Your task to perform on an android device: Open Wikipedia Image 0: 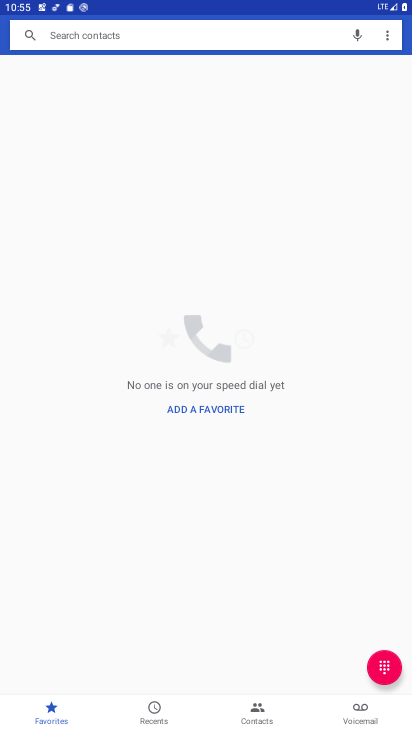
Step 0: press home button
Your task to perform on an android device: Open Wikipedia Image 1: 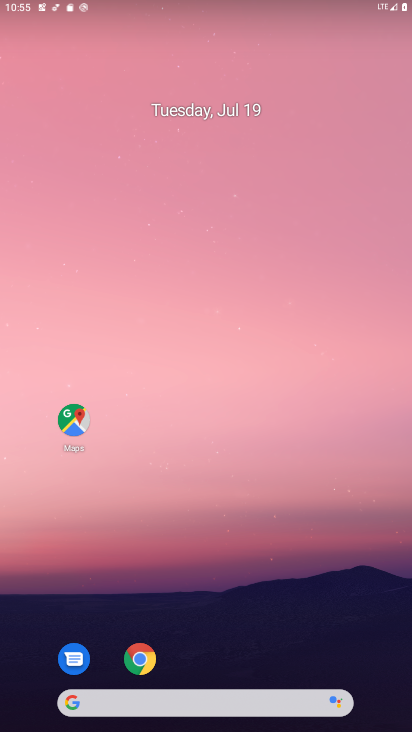
Step 1: drag from (234, 596) to (339, 119)
Your task to perform on an android device: Open Wikipedia Image 2: 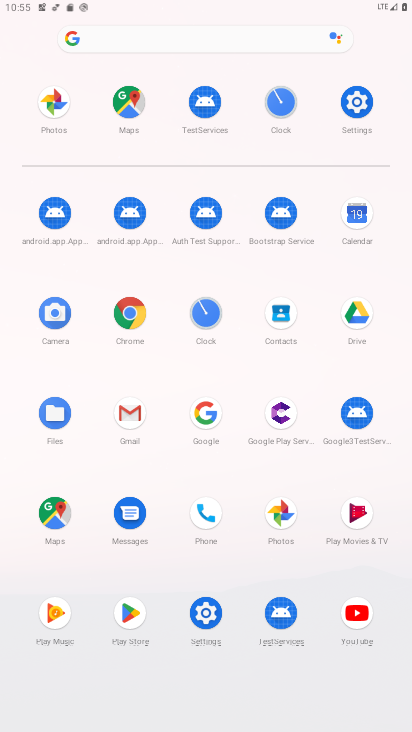
Step 2: click (158, 47)
Your task to perform on an android device: Open Wikipedia Image 3: 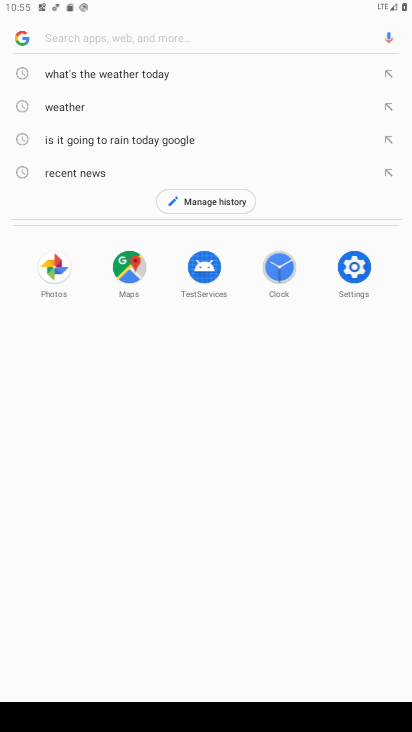
Step 3: type "Wikipedia"
Your task to perform on an android device: Open Wikipedia Image 4: 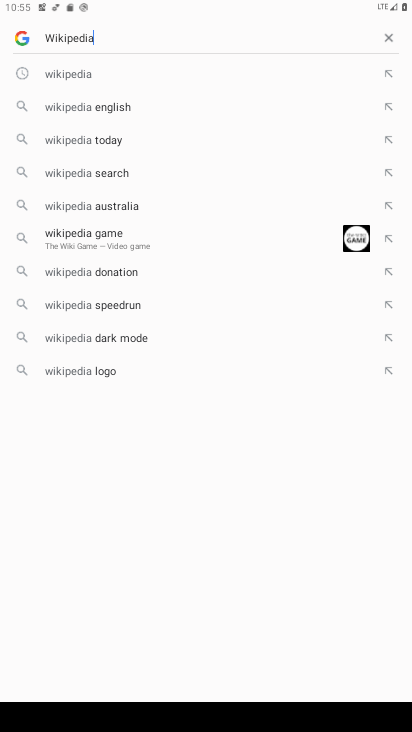
Step 4: click (100, 72)
Your task to perform on an android device: Open Wikipedia Image 5: 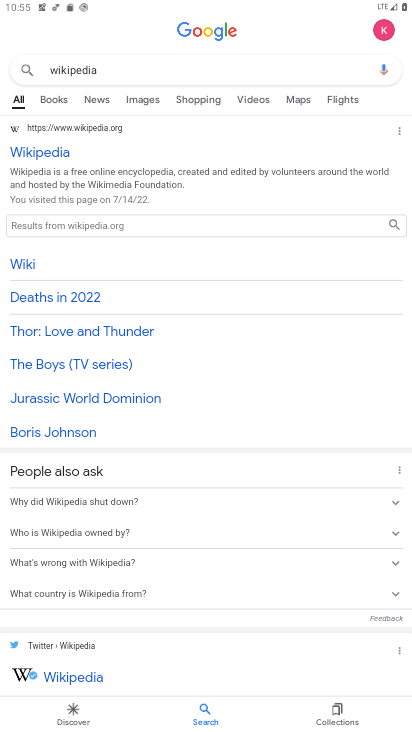
Step 5: click (33, 156)
Your task to perform on an android device: Open Wikipedia Image 6: 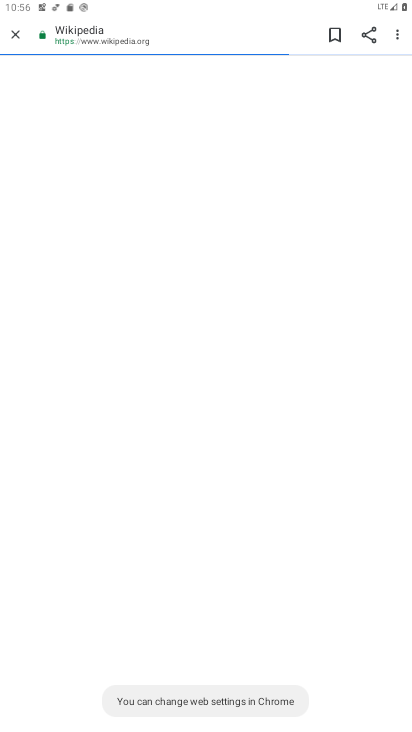
Step 6: task complete